Your task to perform on an android device: Show me popular games on the Play Store Image 0: 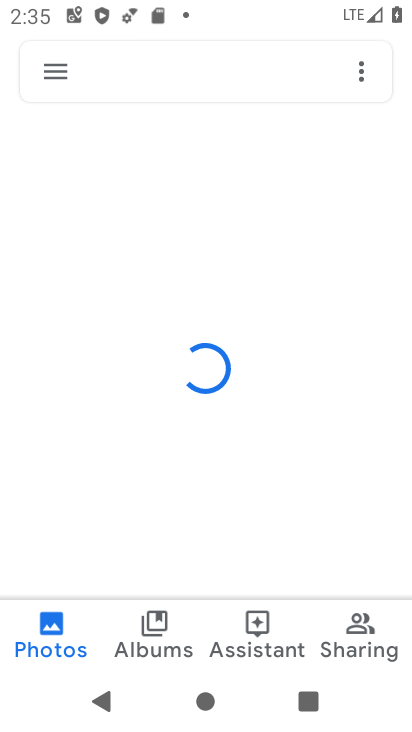
Step 0: press home button
Your task to perform on an android device: Show me popular games on the Play Store Image 1: 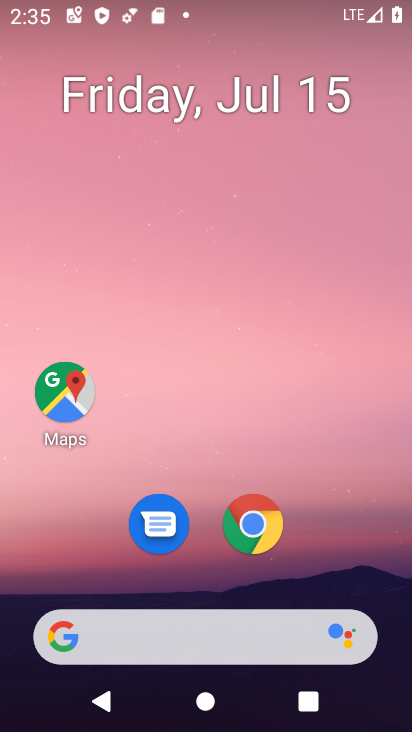
Step 1: drag from (240, 550) to (273, 124)
Your task to perform on an android device: Show me popular games on the Play Store Image 2: 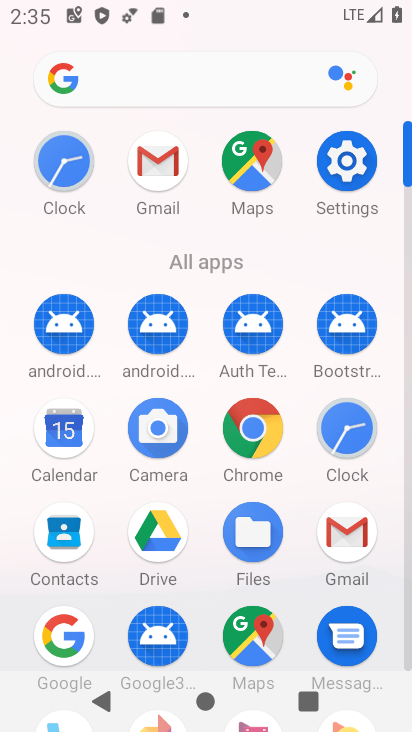
Step 2: drag from (200, 608) to (253, 73)
Your task to perform on an android device: Show me popular games on the Play Store Image 3: 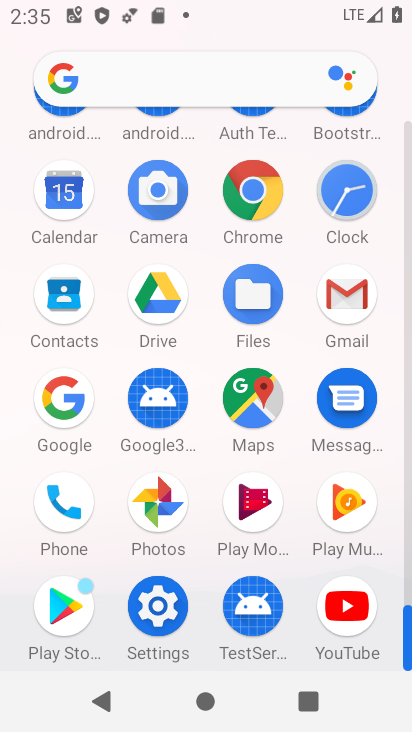
Step 3: click (60, 621)
Your task to perform on an android device: Show me popular games on the Play Store Image 4: 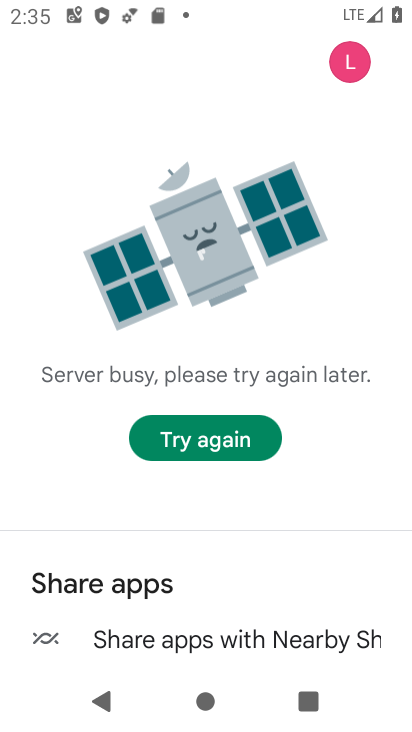
Step 4: click (214, 445)
Your task to perform on an android device: Show me popular games on the Play Store Image 5: 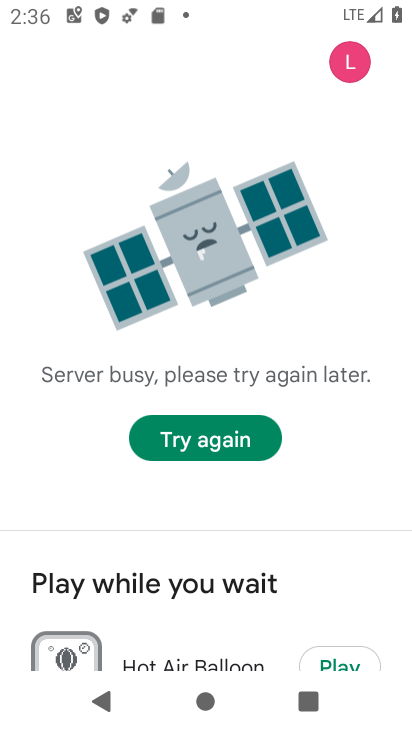
Step 5: click (214, 445)
Your task to perform on an android device: Show me popular games on the Play Store Image 6: 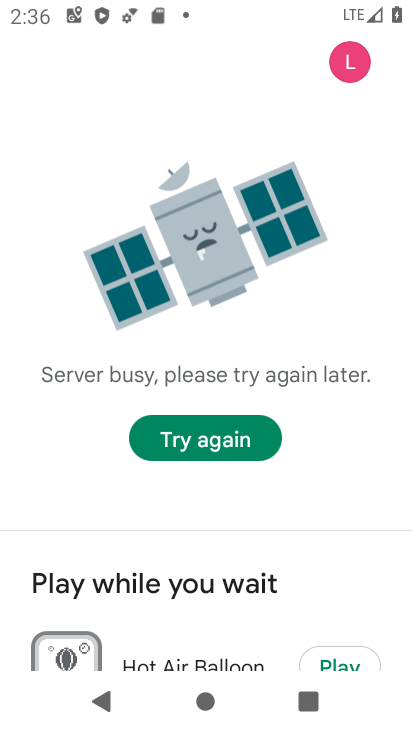
Step 6: task complete